Your task to perform on an android device: Go to wifi settings Image 0: 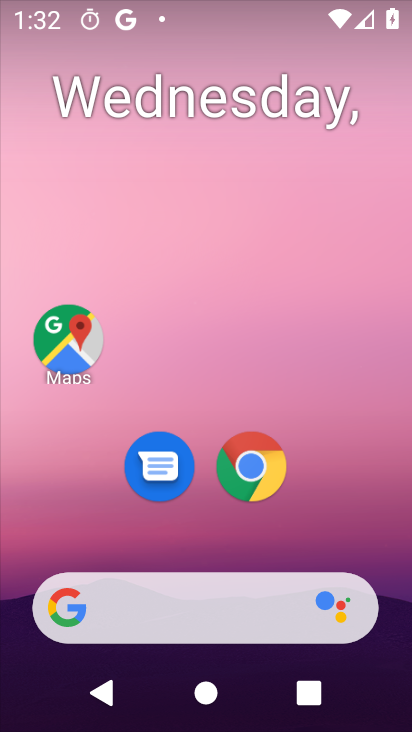
Step 0: drag from (332, 511) to (318, 33)
Your task to perform on an android device: Go to wifi settings Image 1: 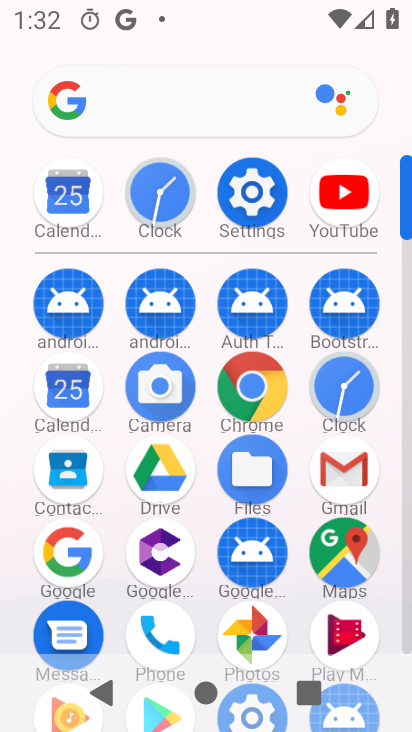
Step 1: click (252, 196)
Your task to perform on an android device: Go to wifi settings Image 2: 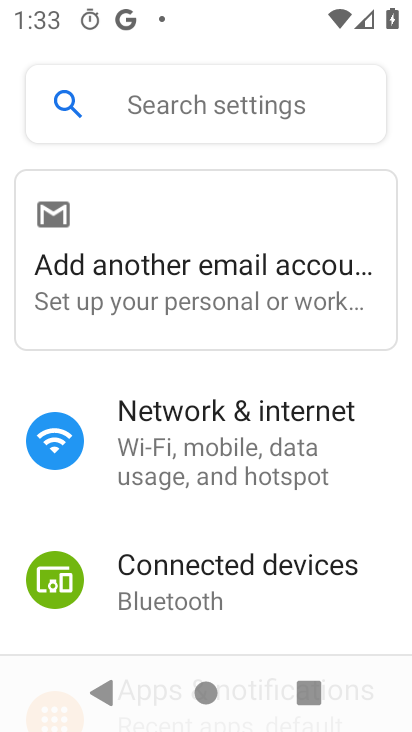
Step 2: click (258, 448)
Your task to perform on an android device: Go to wifi settings Image 3: 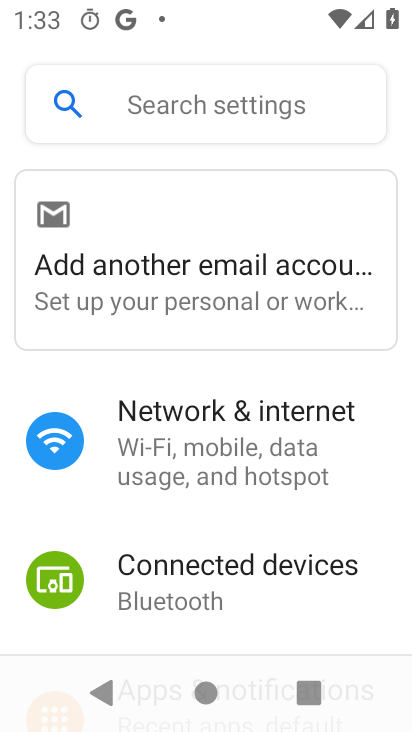
Step 3: click (256, 431)
Your task to perform on an android device: Go to wifi settings Image 4: 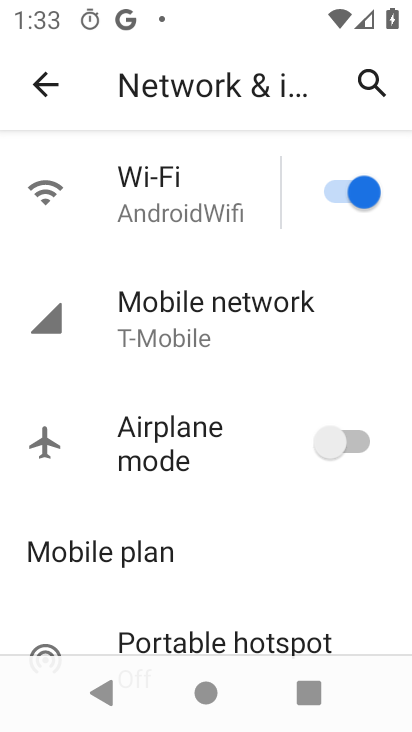
Step 4: task complete